Your task to perform on an android device: find photos in the google photos app Image 0: 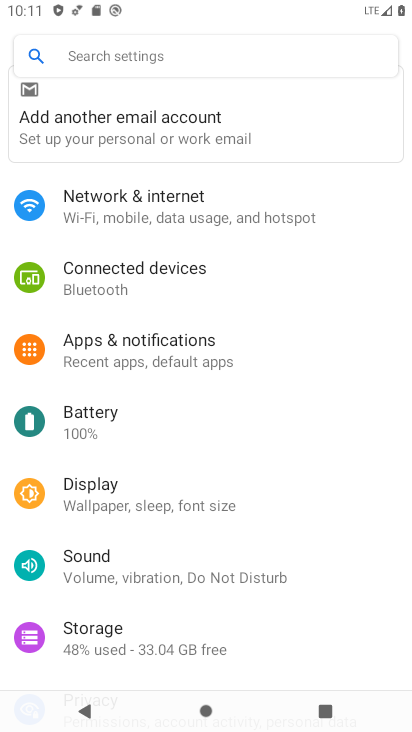
Step 0: press home button
Your task to perform on an android device: find photos in the google photos app Image 1: 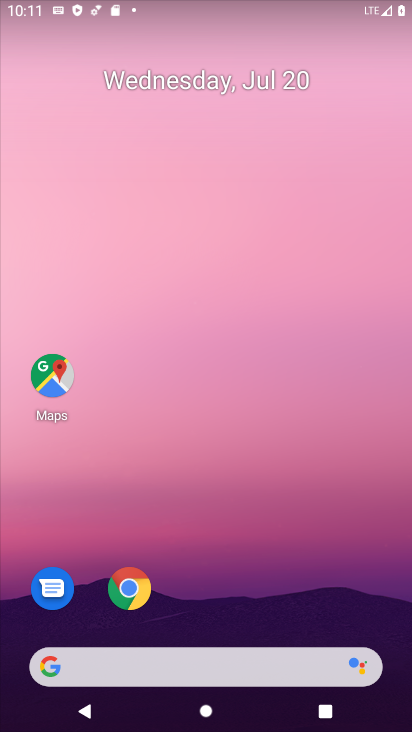
Step 1: drag from (196, 635) to (195, 172)
Your task to perform on an android device: find photos in the google photos app Image 2: 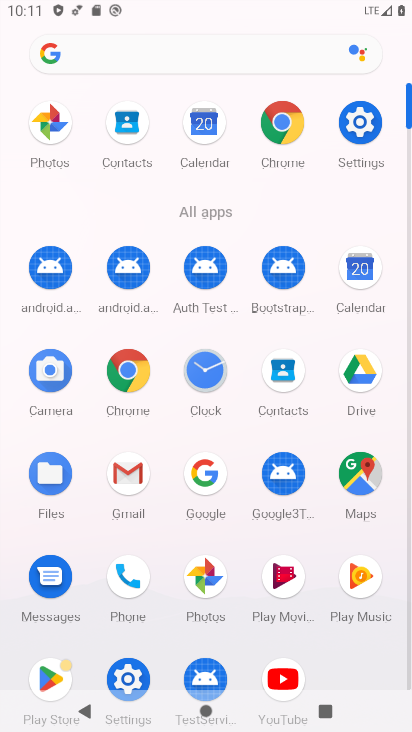
Step 2: click (224, 580)
Your task to perform on an android device: find photos in the google photos app Image 3: 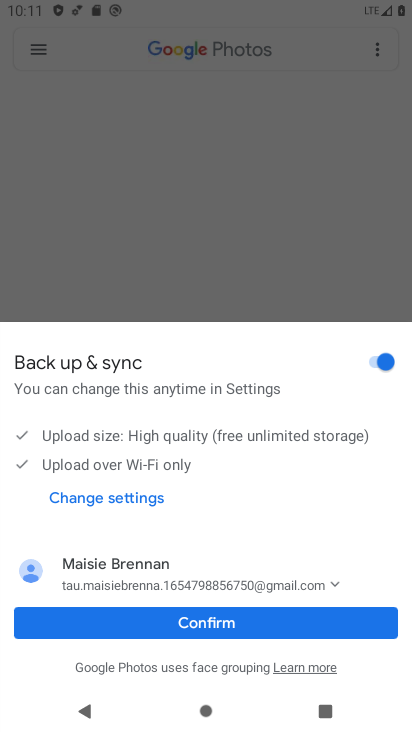
Step 3: click (266, 624)
Your task to perform on an android device: find photos in the google photos app Image 4: 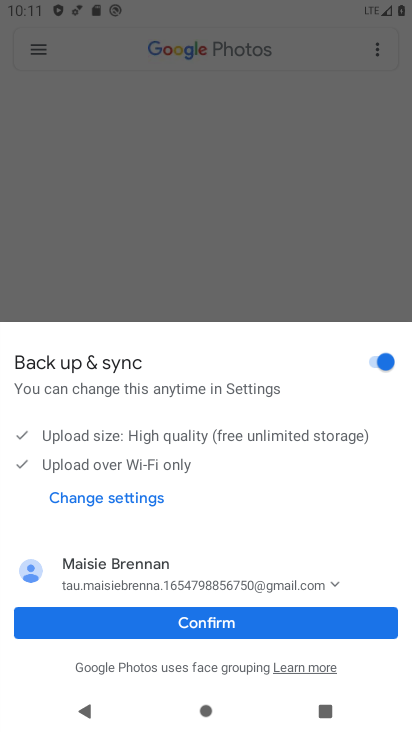
Step 4: click (263, 622)
Your task to perform on an android device: find photos in the google photos app Image 5: 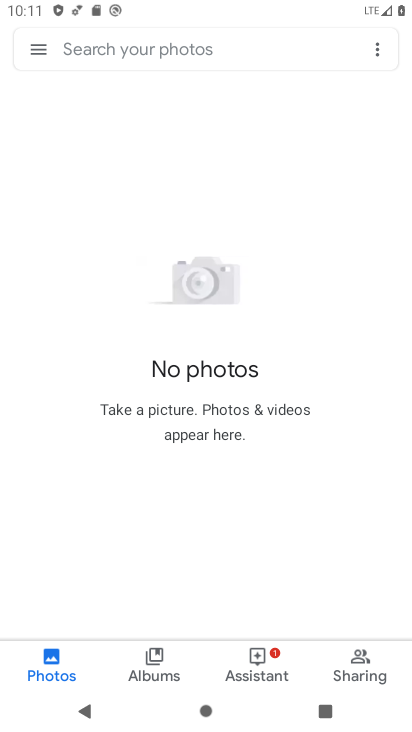
Step 5: task complete